Your task to perform on an android device: Open settings on Google Maps Image 0: 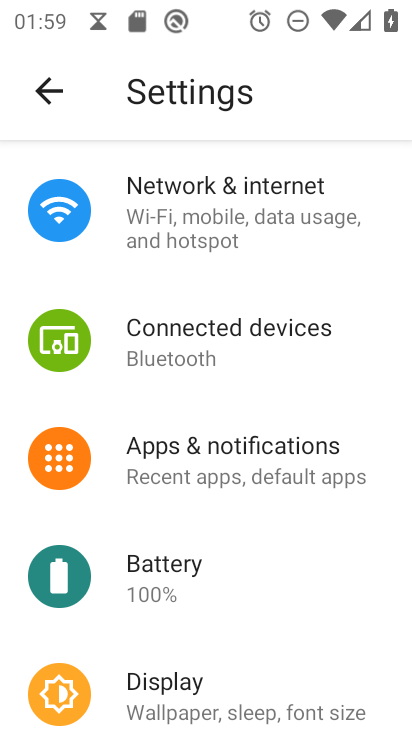
Step 0: press home button
Your task to perform on an android device: Open settings on Google Maps Image 1: 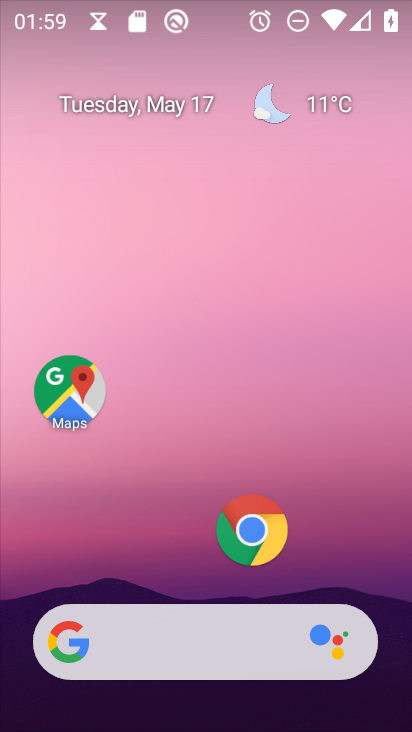
Step 1: click (50, 407)
Your task to perform on an android device: Open settings on Google Maps Image 2: 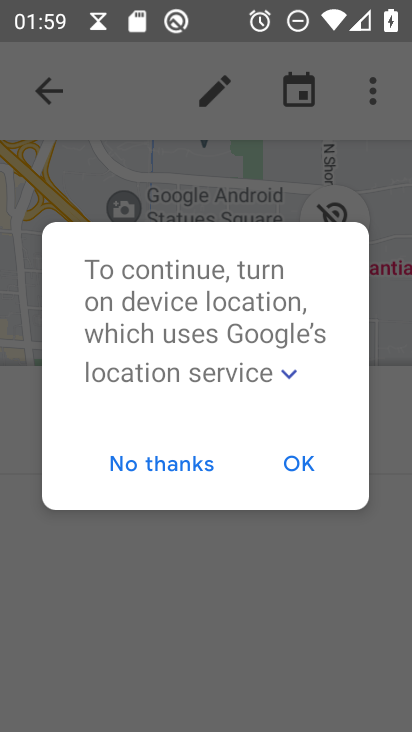
Step 2: task complete